Your task to perform on an android device: Clear the cart on target. Add "usb-a" to the cart on target, then select checkout. Image 0: 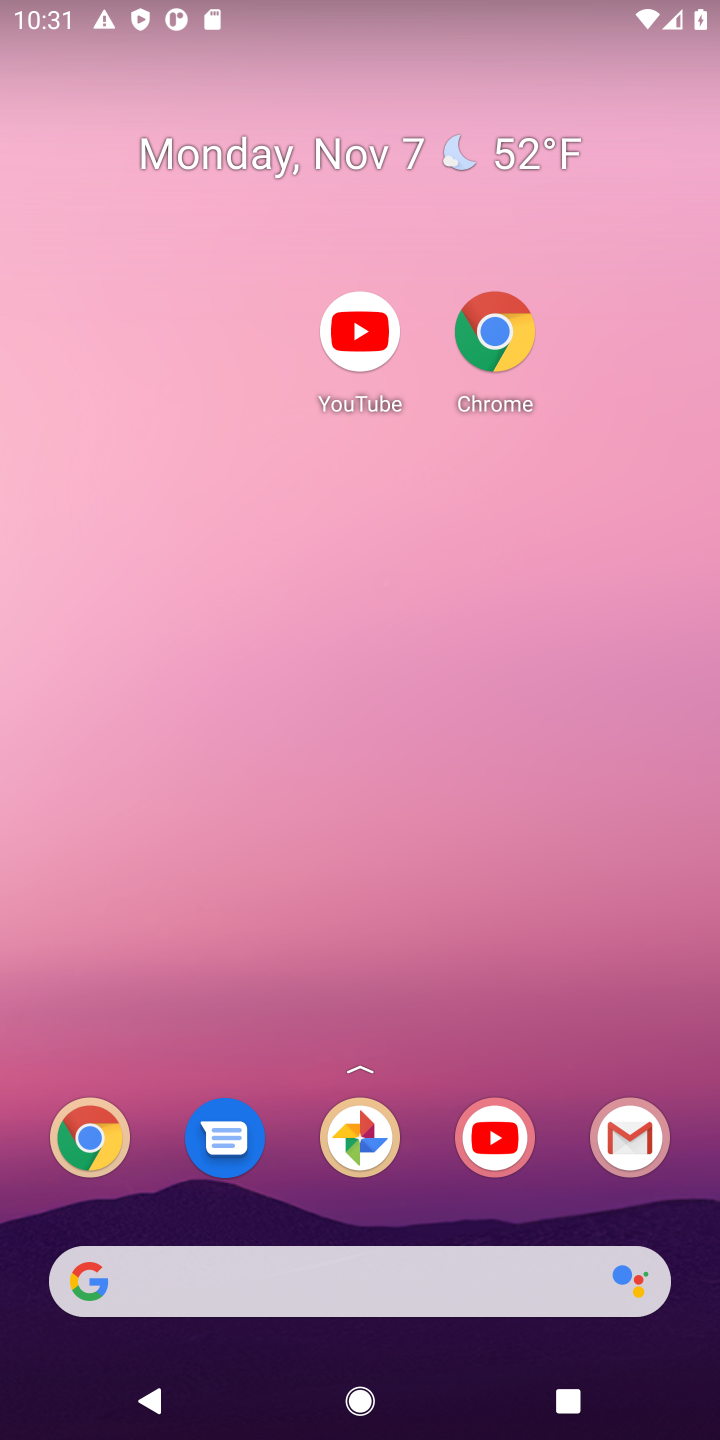
Step 0: press home button
Your task to perform on an android device: Clear the cart on target. Add "usb-a" to the cart on target, then select checkout. Image 1: 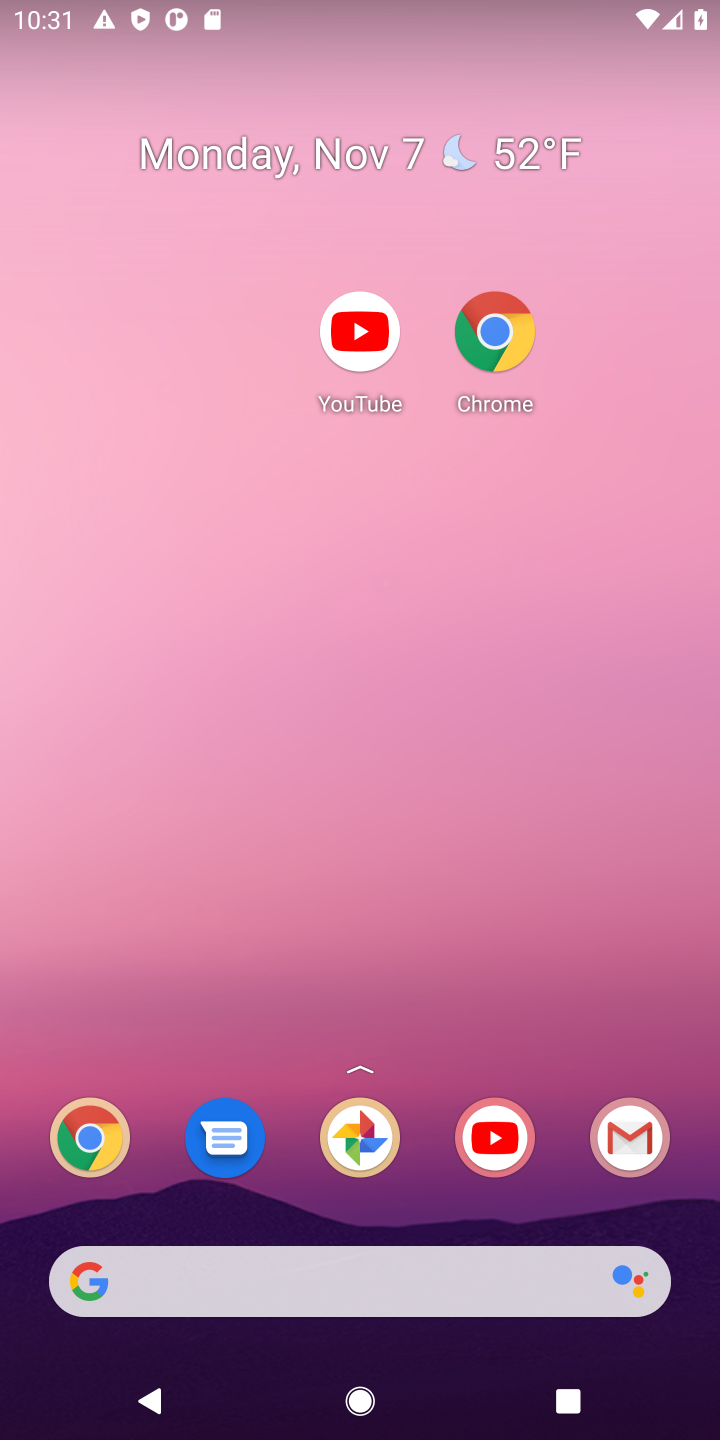
Step 1: drag from (397, 455) to (423, 152)
Your task to perform on an android device: Clear the cart on target. Add "usb-a" to the cart on target, then select checkout. Image 2: 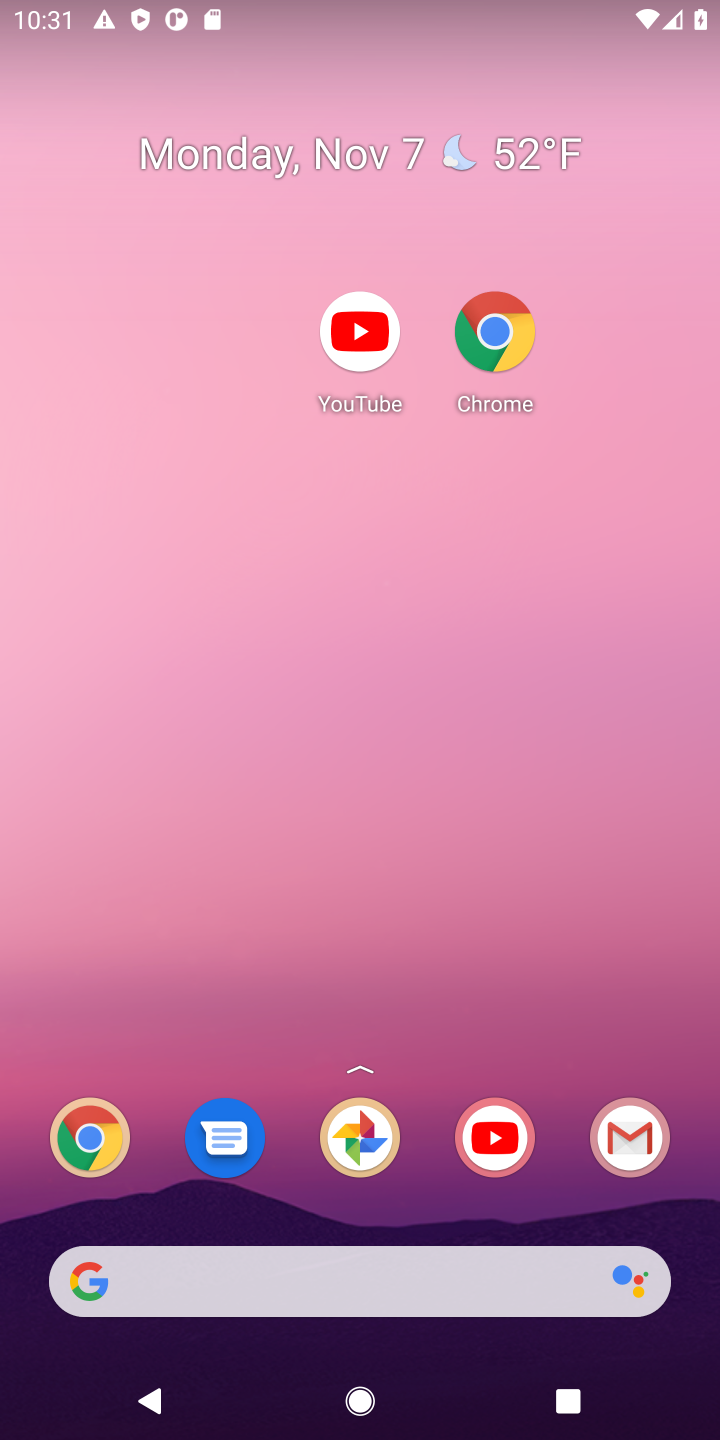
Step 2: drag from (279, 1199) to (259, 173)
Your task to perform on an android device: Clear the cart on target. Add "usb-a" to the cart on target, then select checkout. Image 3: 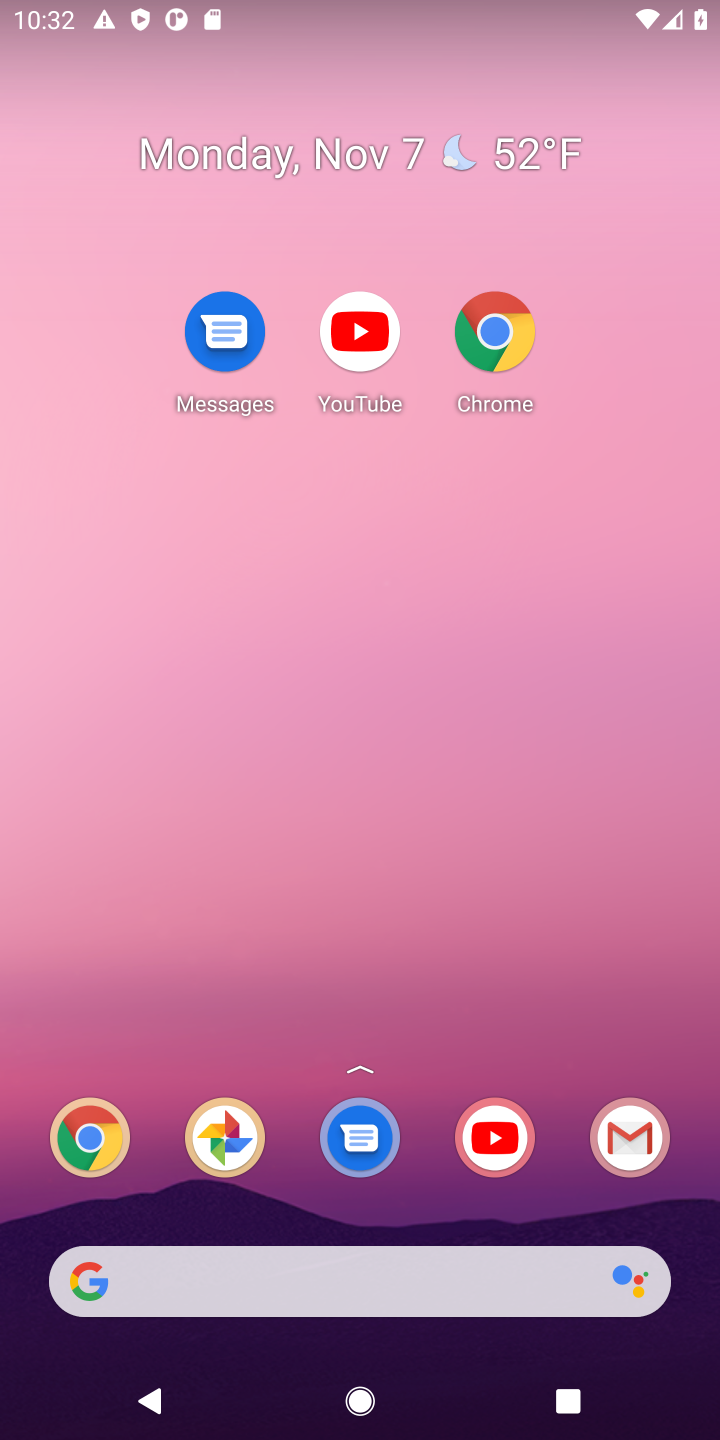
Step 3: drag from (298, 1215) to (217, 485)
Your task to perform on an android device: Clear the cart on target. Add "usb-a" to the cart on target, then select checkout. Image 4: 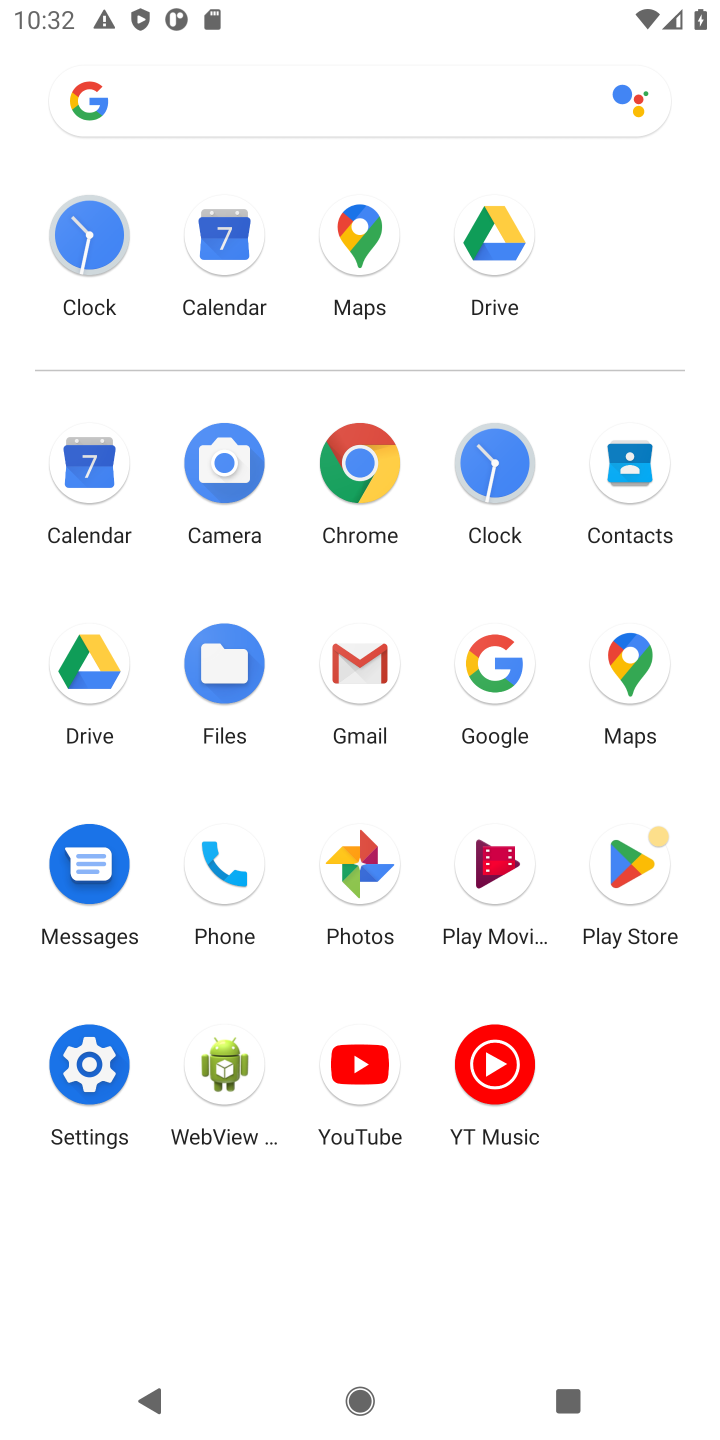
Step 4: click (358, 465)
Your task to perform on an android device: Clear the cart on target. Add "usb-a" to the cart on target, then select checkout. Image 5: 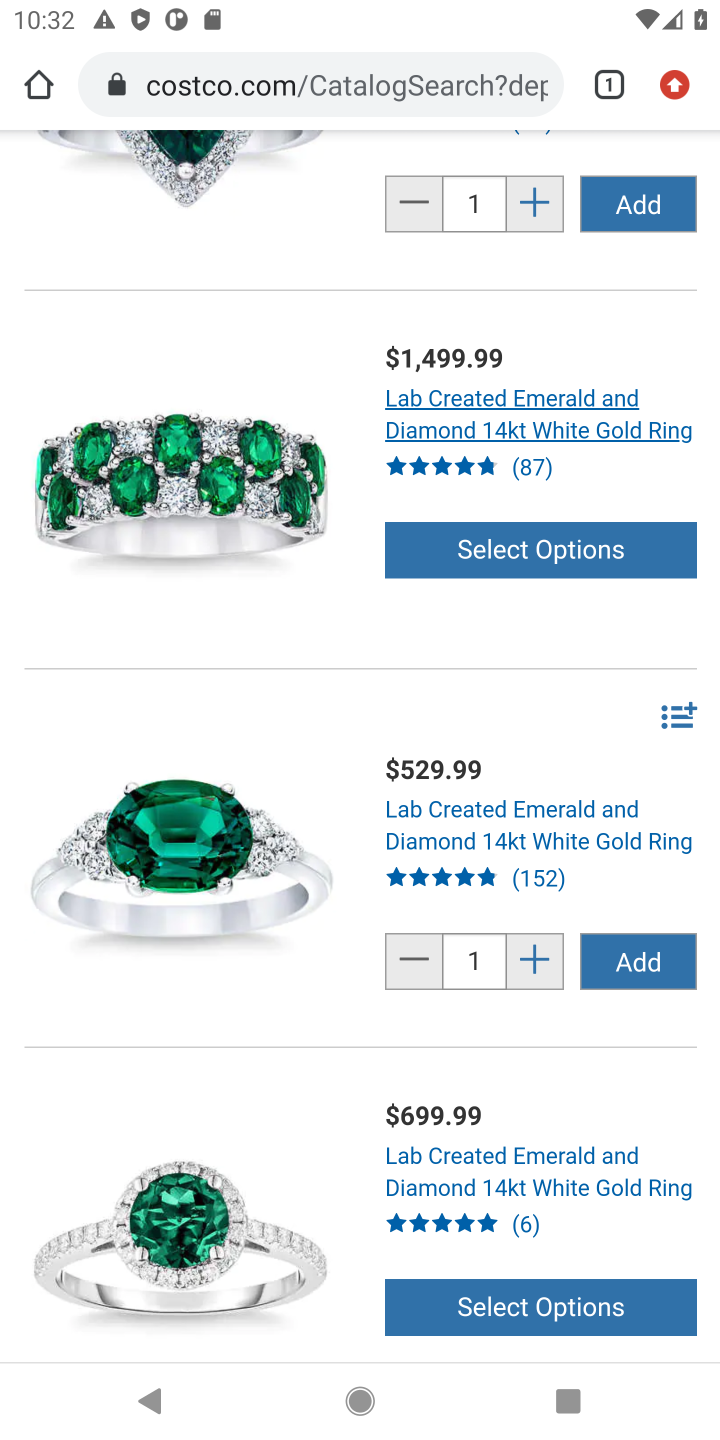
Step 5: click (384, 69)
Your task to perform on an android device: Clear the cart on target. Add "usb-a" to the cart on target, then select checkout. Image 6: 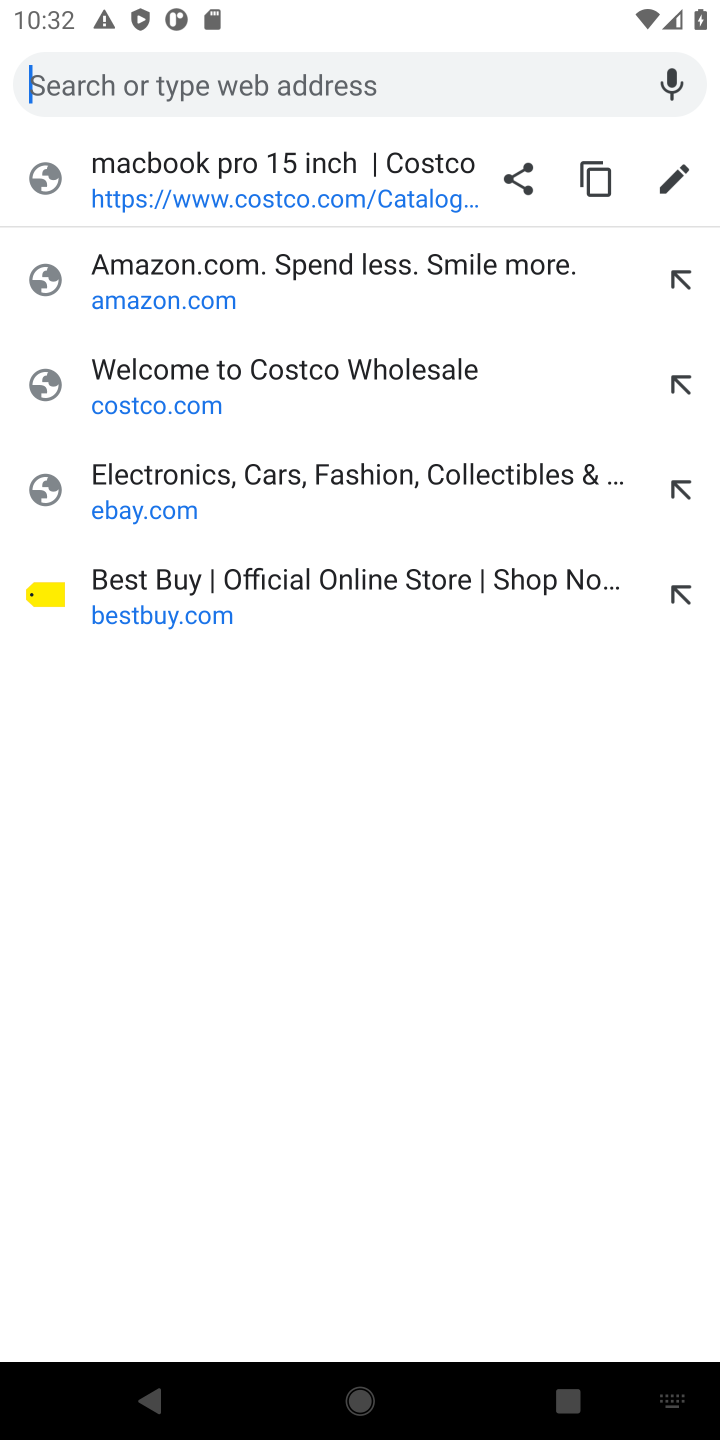
Step 6: type "target.com"
Your task to perform on an android device: Clear the cart on target. Add "usb-a" to the cart on target, then select checkout. Image 7: 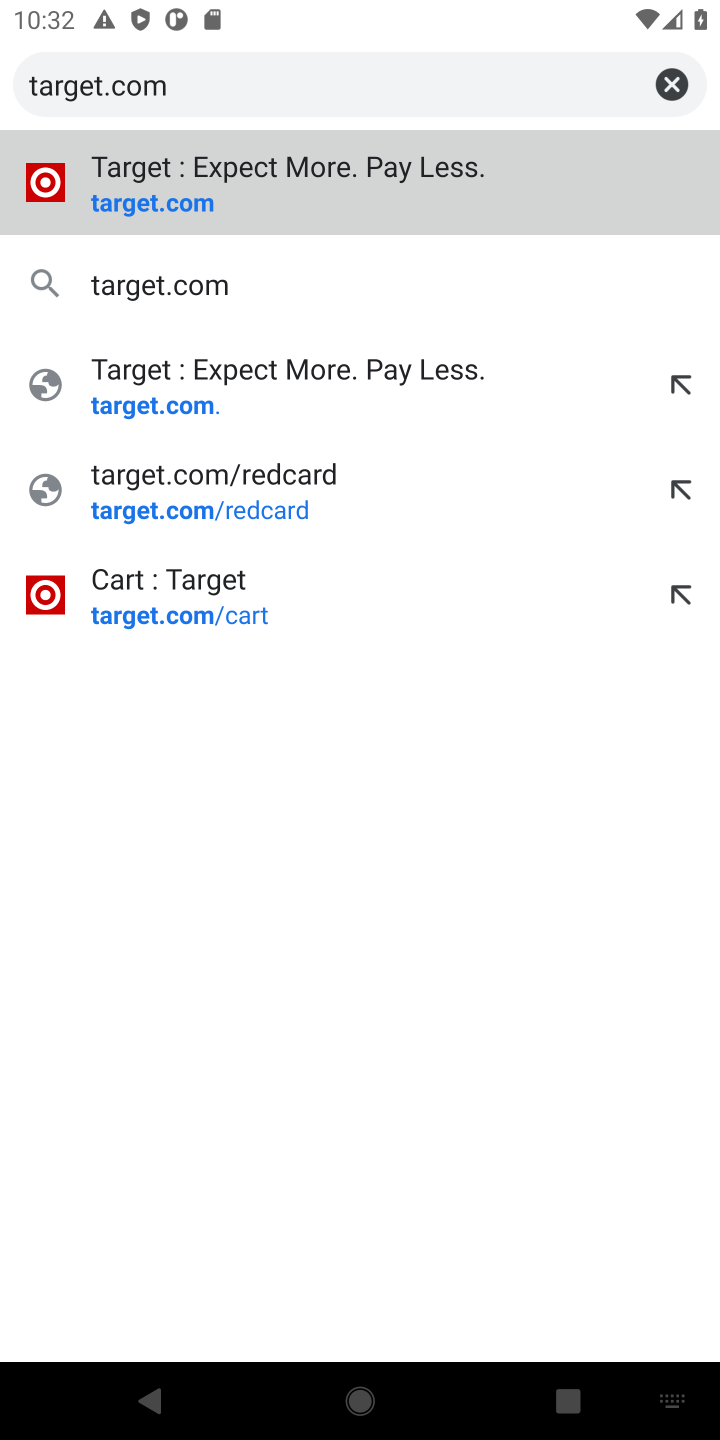
Step 7: press enter
Your task to perform on an android device: Clear the cart on target. Add "usb-a" to the cart on target, then select checkout. Image 8: 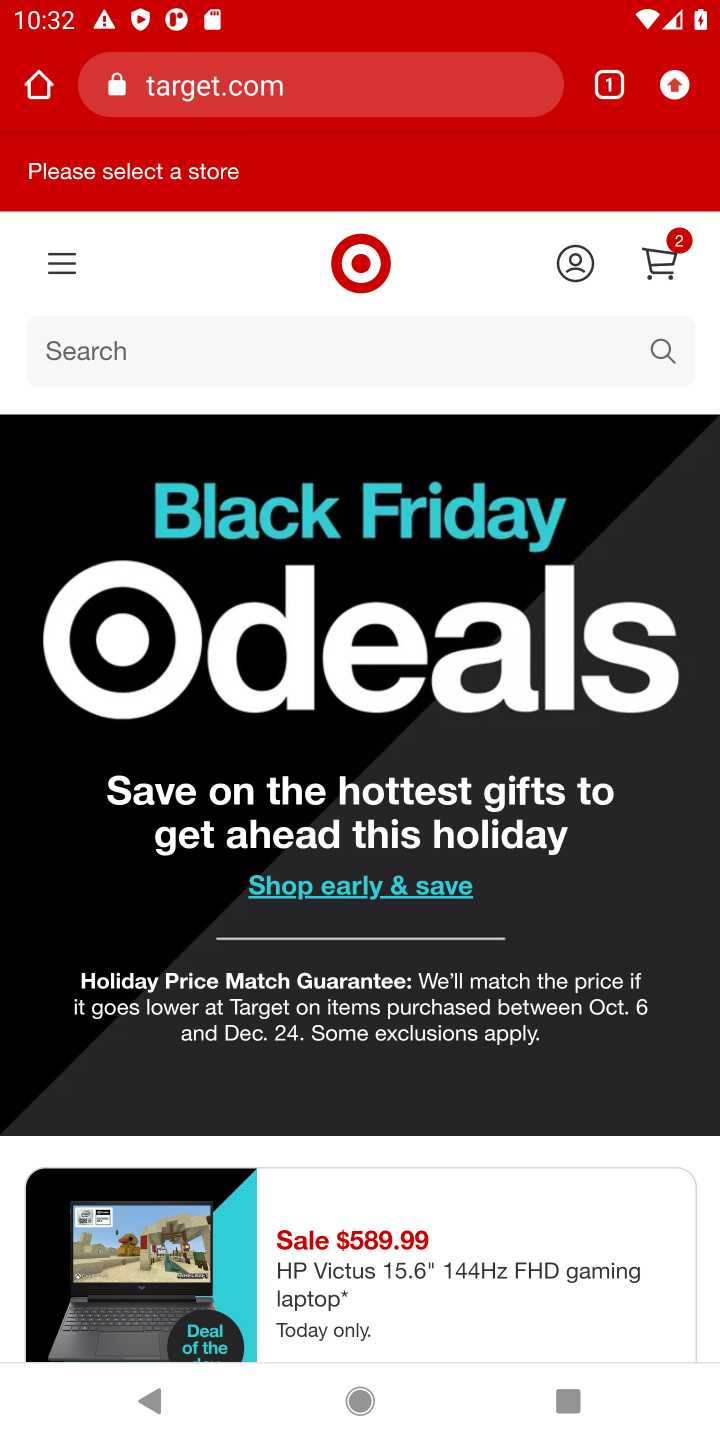
Step 8: click (658, 257)
Your task to perform on an android device: Clear the cart on target. Add "usb-a" to the cart on target, then select checkout. Image 9: 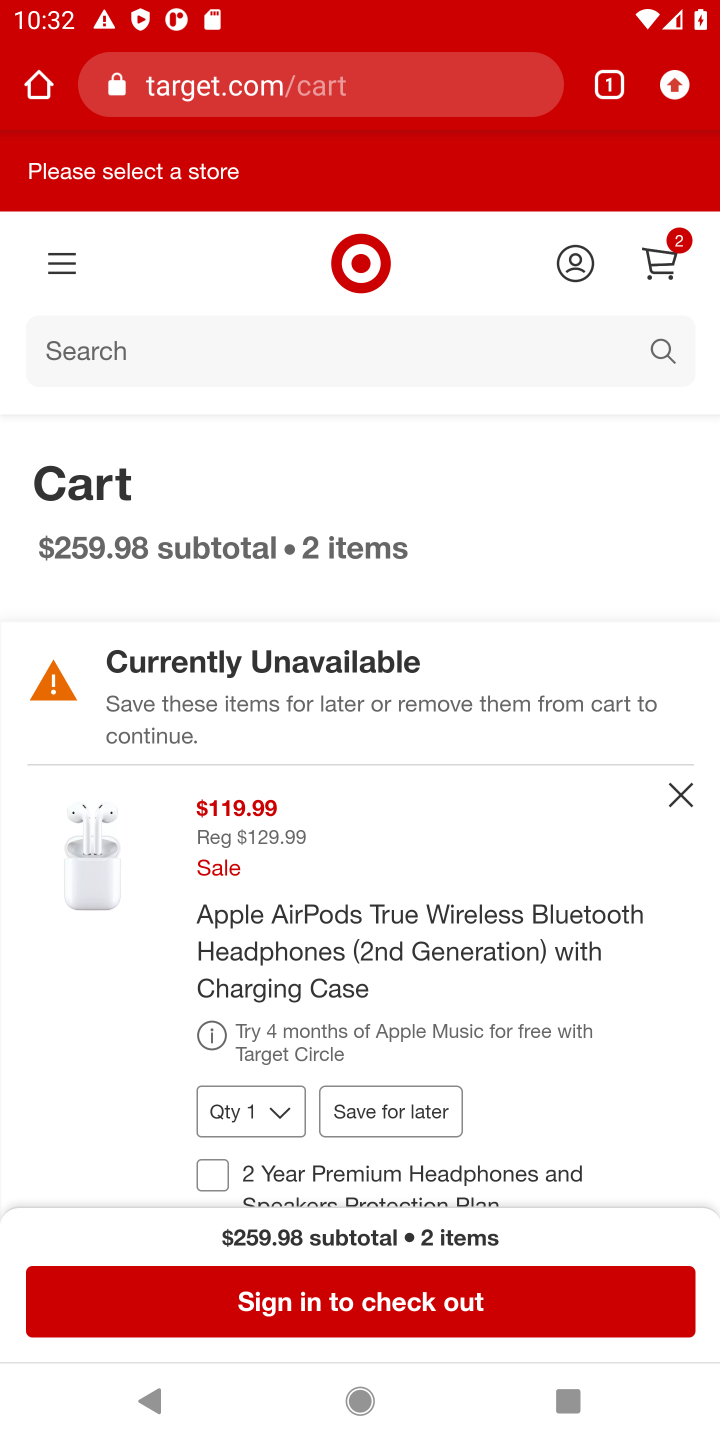
Step 9: click (680, 792)
Your task to perform on an android device: Clear the cart on target. Add "usb-a" to the cart on target, then select checkout. Image 10: 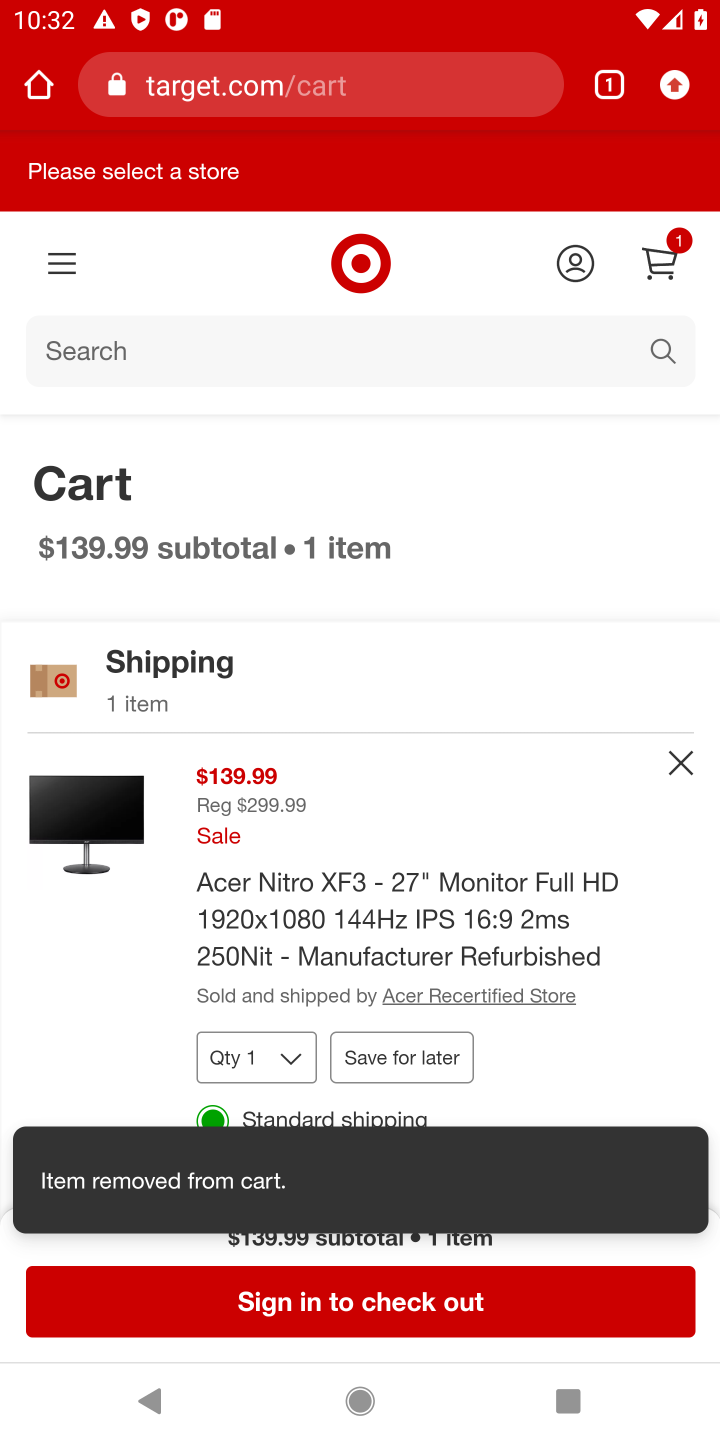
Step 10: click (692, 774)
Your task to perform on an android device: Clear the cart on target. Add "usb-a" to the cart on target, then select checkout. Image 11: 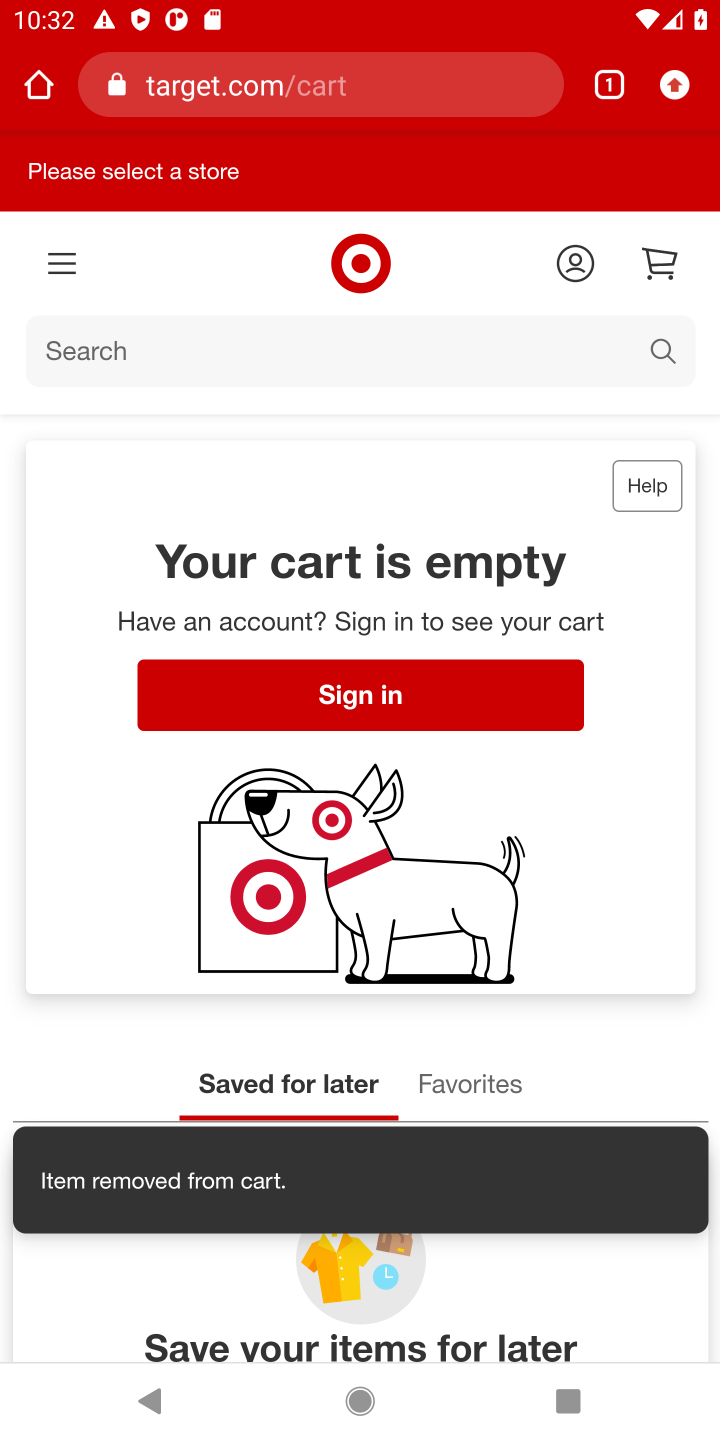
Step 11: click (531, 347)
Your task to perform on an android device: Clear the cart on target. Add "usb-a" to the cart on target, then select checkout. Image 12: 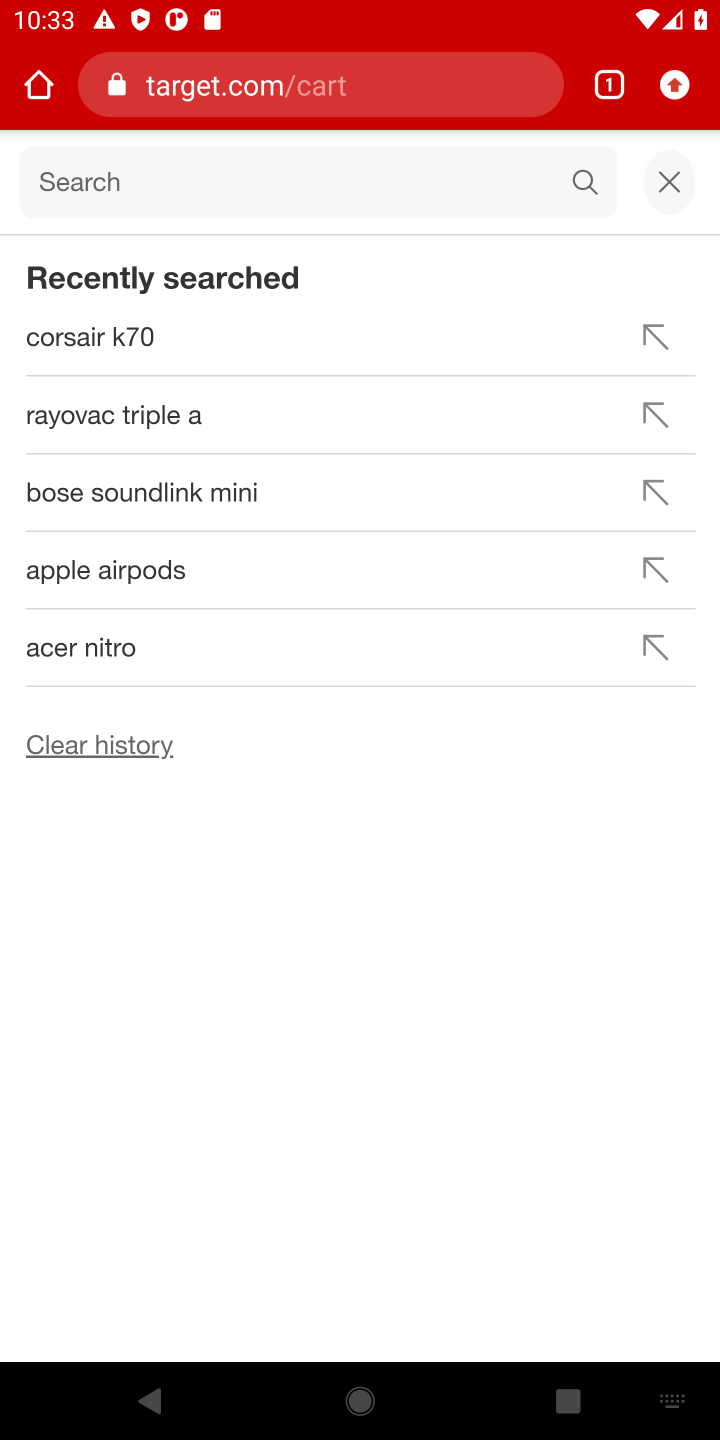
Step 12: type "usb-a "
Your task to perform on an android device: Clear the cart on target. Add "usb-a" to the cart on target, then select checkout. Image 13: 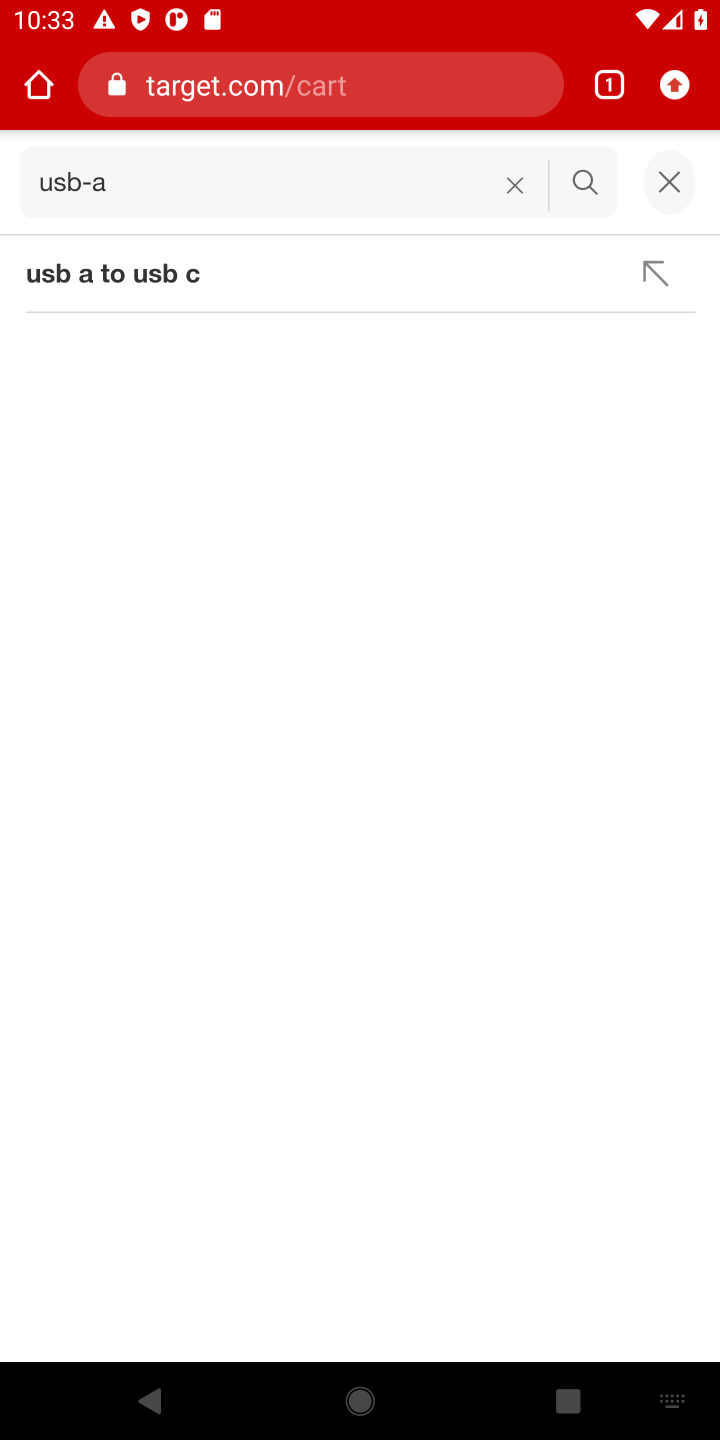
Step 13: press enter
Your task to perform on an android device: Clear the cart on target. Add "usb-a" to the cart on target, then select checkout. Image 14: 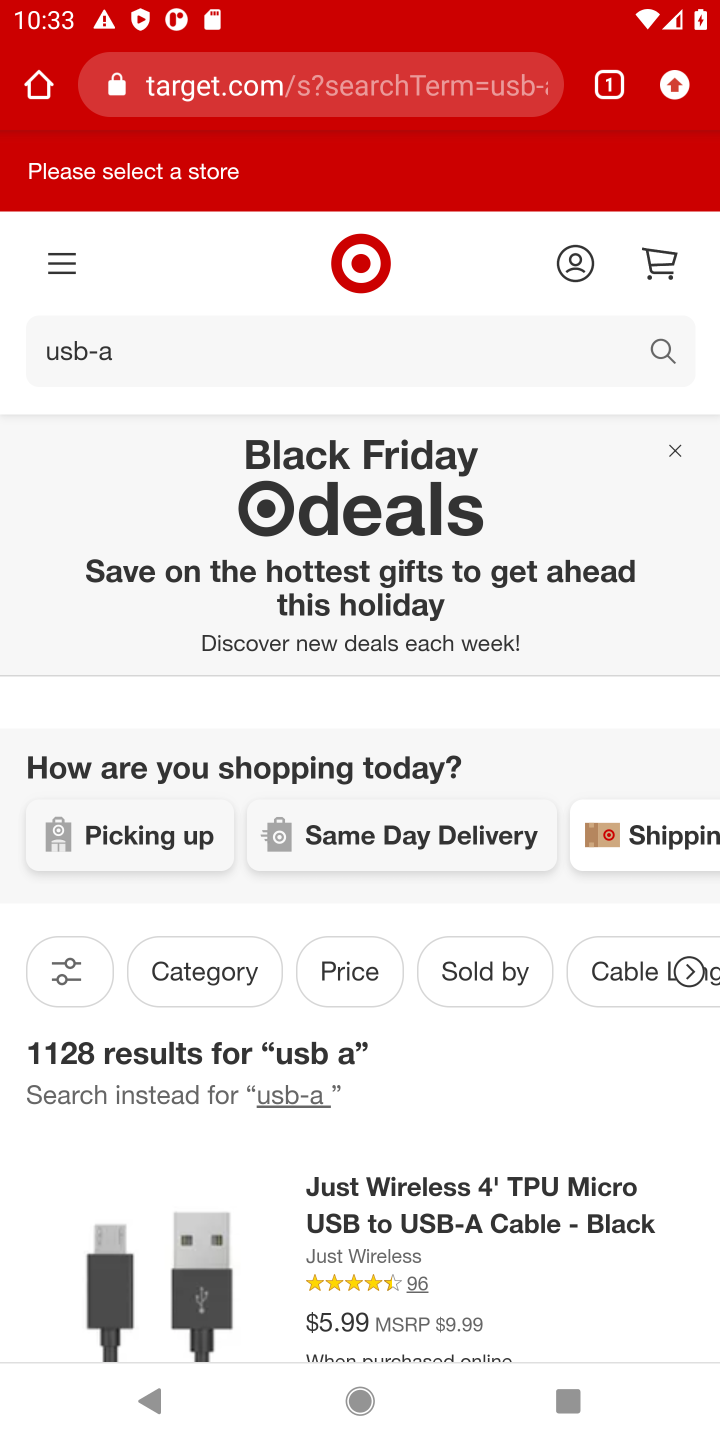
Step 14: drag from (450, 1134) to (423, 342)
Your task to perform on an android device: Clear the cart on target. Add "usb-a" to the cart on target, then select checkout. Image 15: 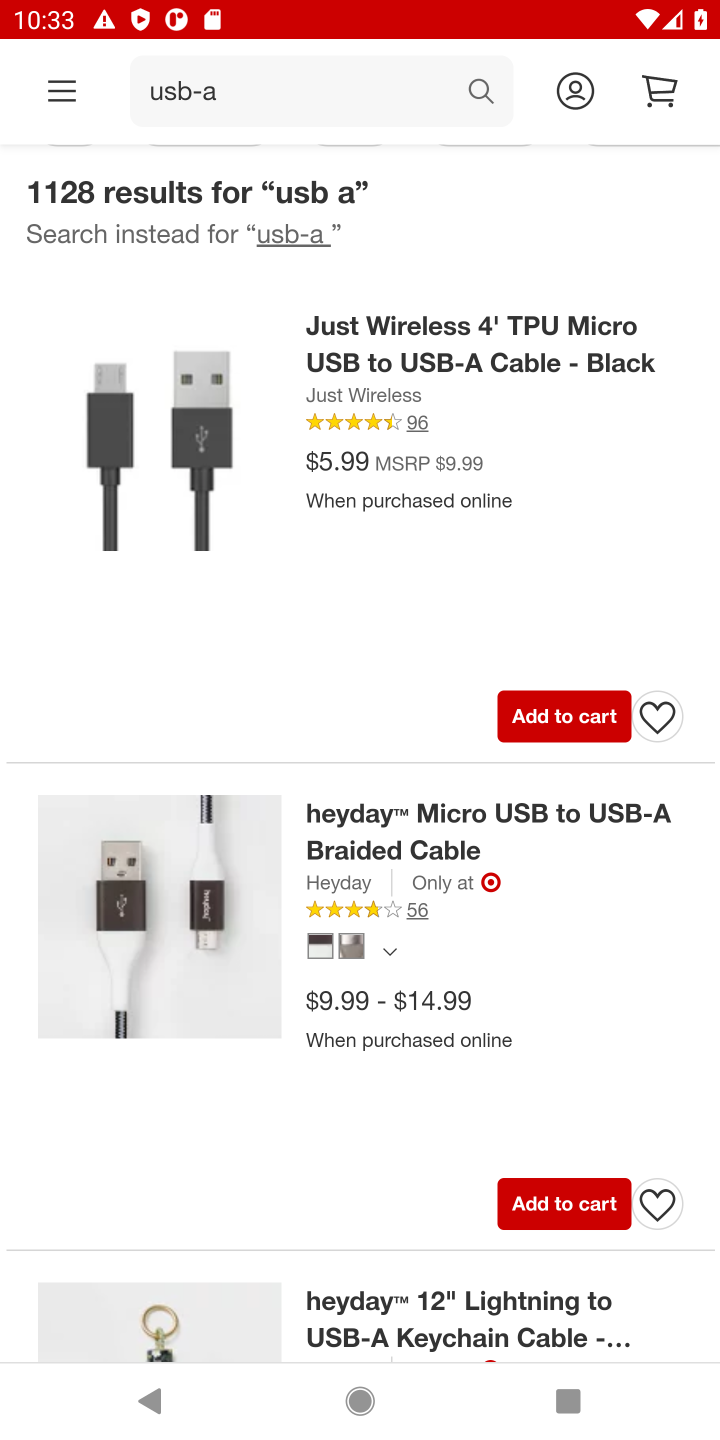
Step 15: click (712, 1052)
Your task to perform on an android device: Clear the cart on target. Add "usb-a" to the cart on target, then select checkout. Image 16: 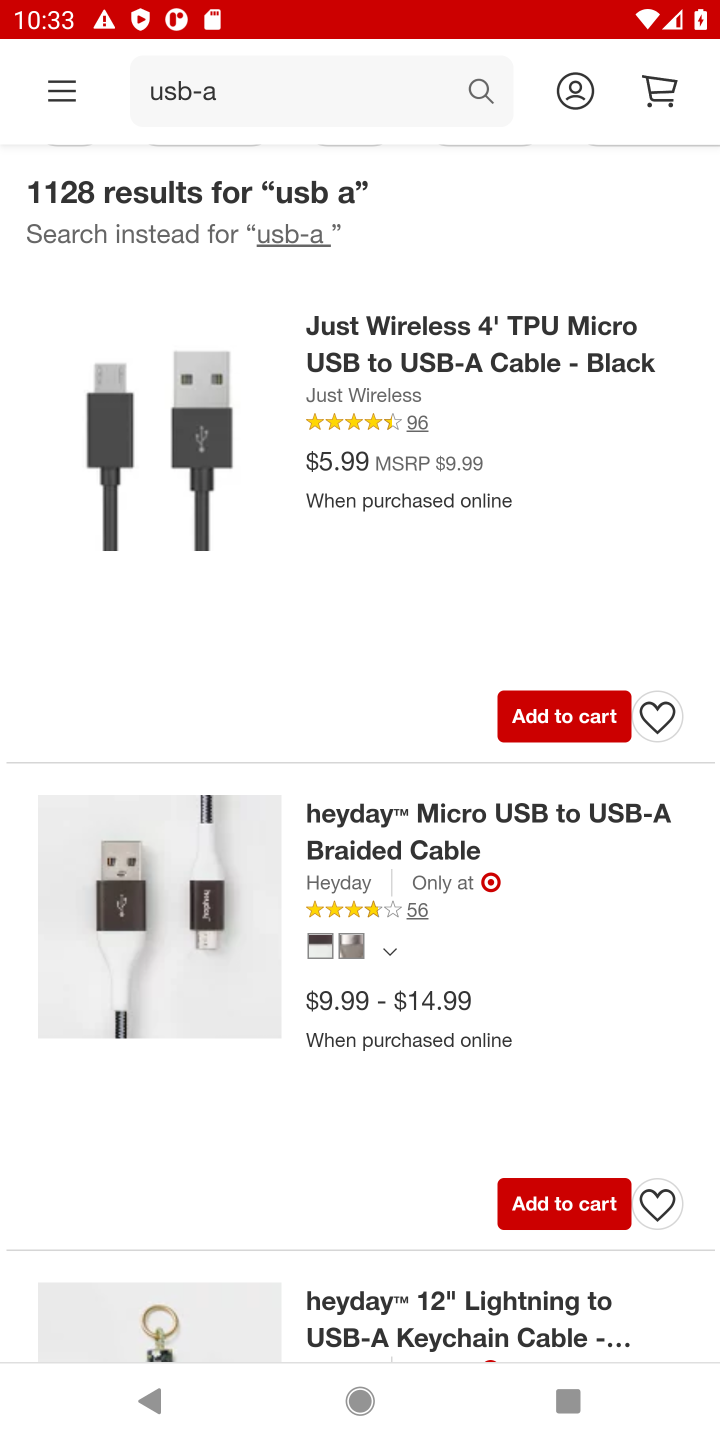
Step 16: click (582, 713)
Your task to perform on an android device: Clear the cart on target. Add "usb-a" to the cart on target, then select checkout. Image 17: 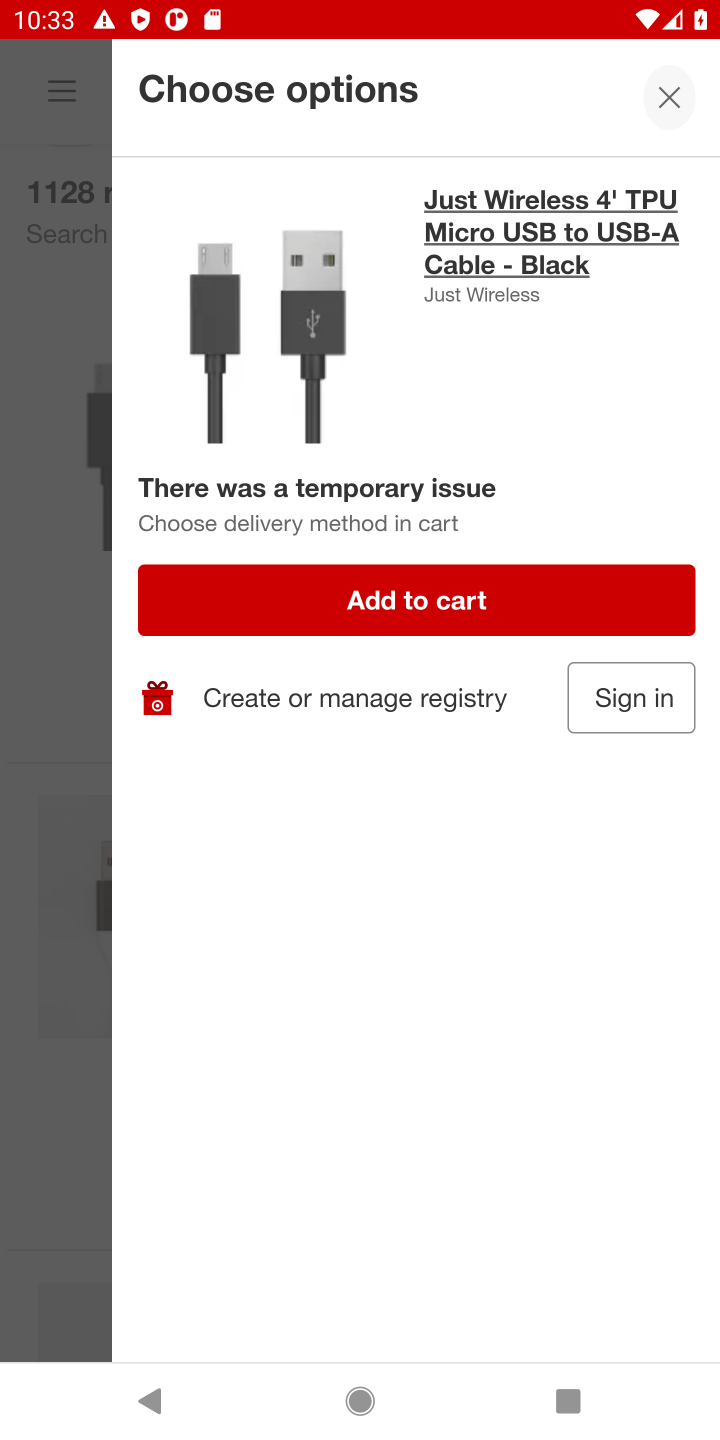
Step 17: click (483, 606)
Your task to perform on an android device: Clear the cart on target. Add "usb-a" to the cart on target, then select checkout. Image 18: 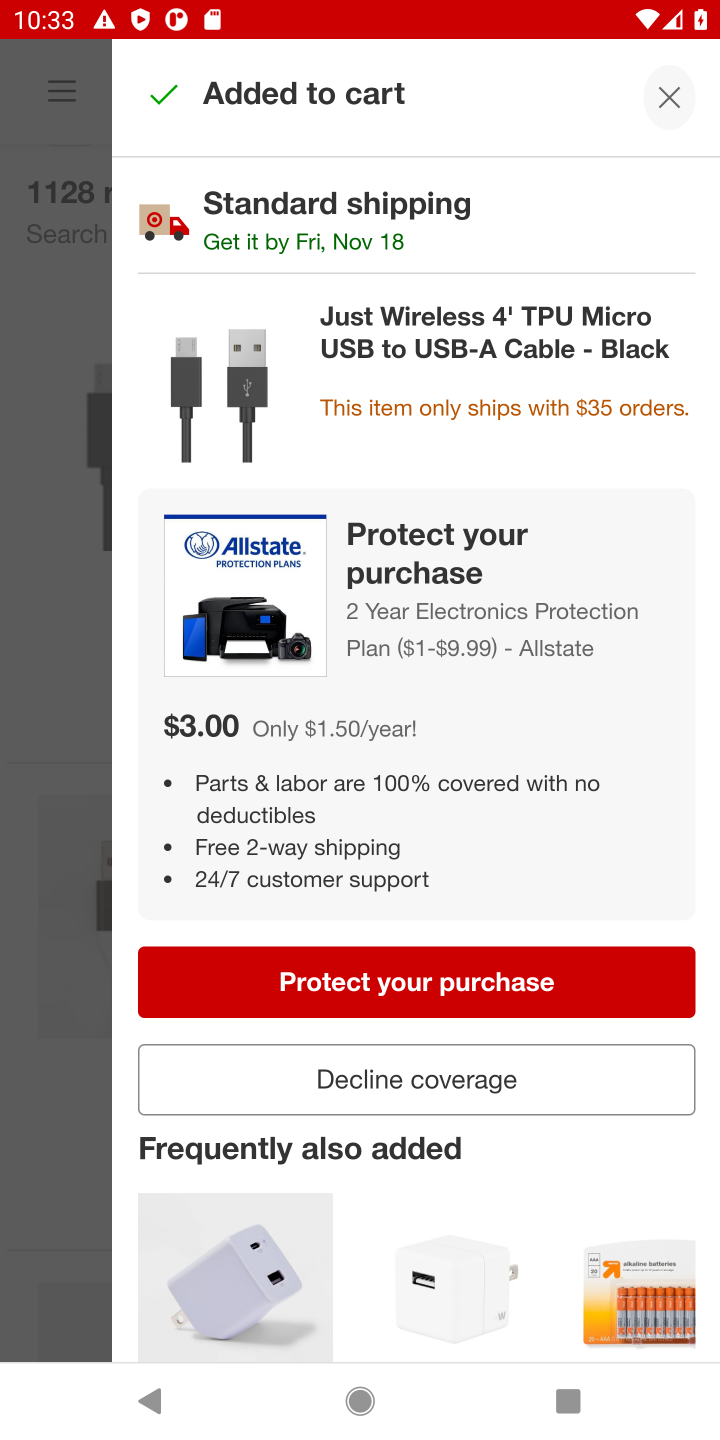
Step 18: click (671, 98)
Your task to perform on an android device: Clear the cart on target. Add "usb-a" to the cart on target, then select checkout. Image 19: 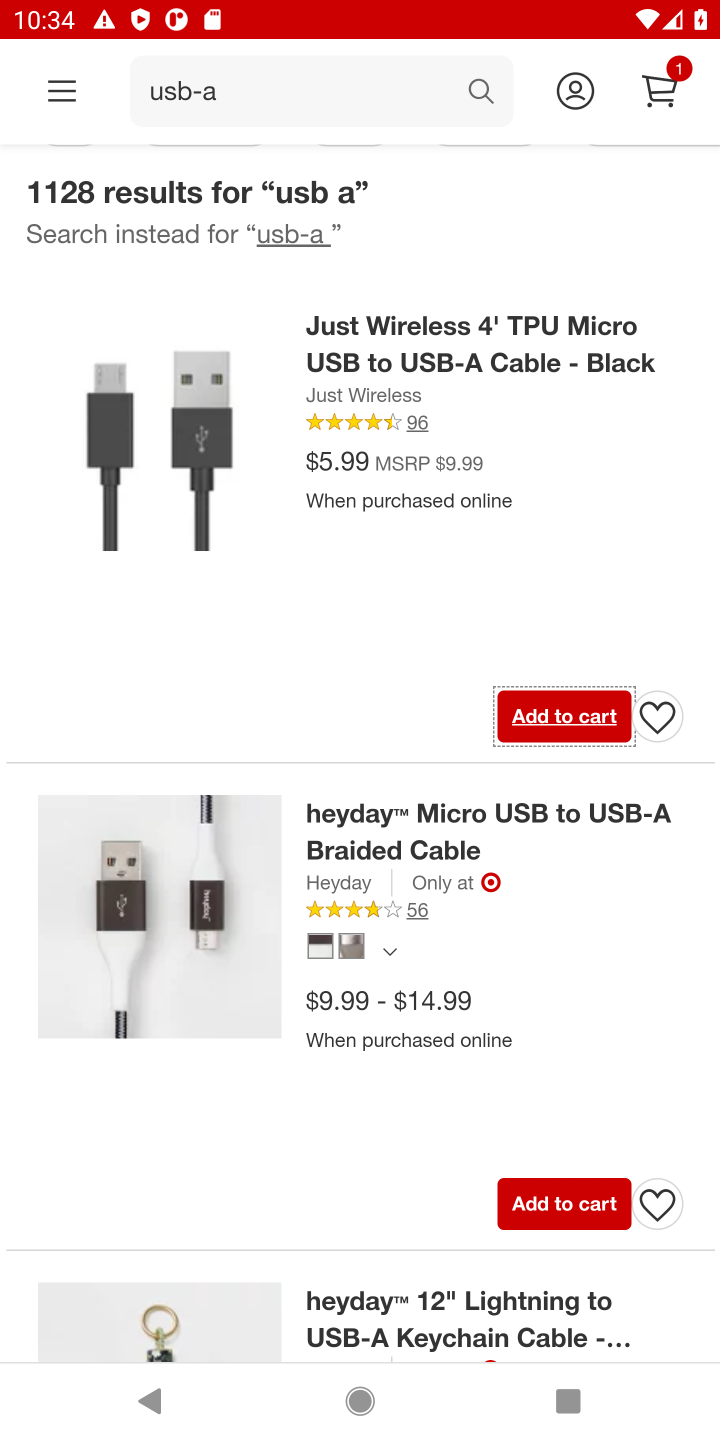
Step 19: click (671, 98)
Your task to perform on an android device: Clear the cart on target. Add "usb-a" to the cart on target, then select checkout. Image 20: 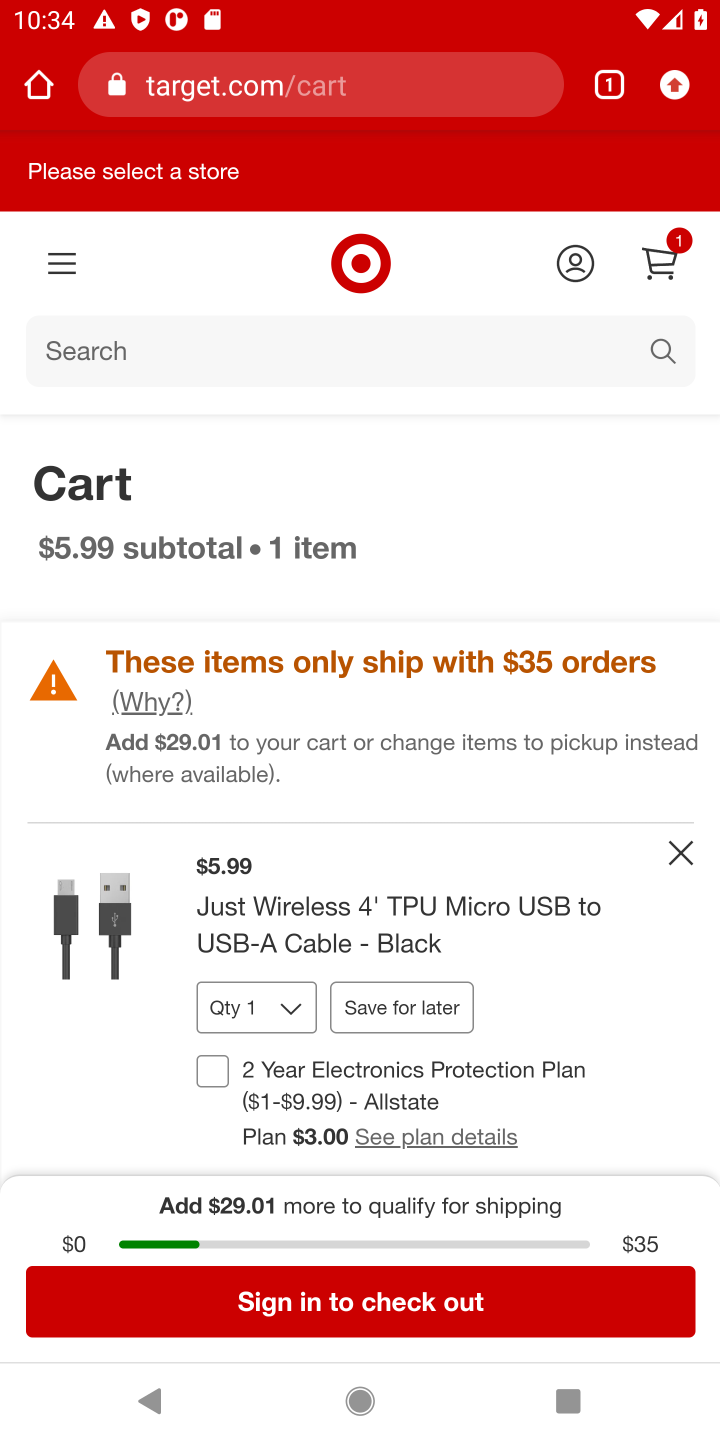
Step 20: click (445, 1298)
Your task to perform on an android device: Clear the cart on target. Add "usb-a" to the cart on target, then select checkout. Image 21: 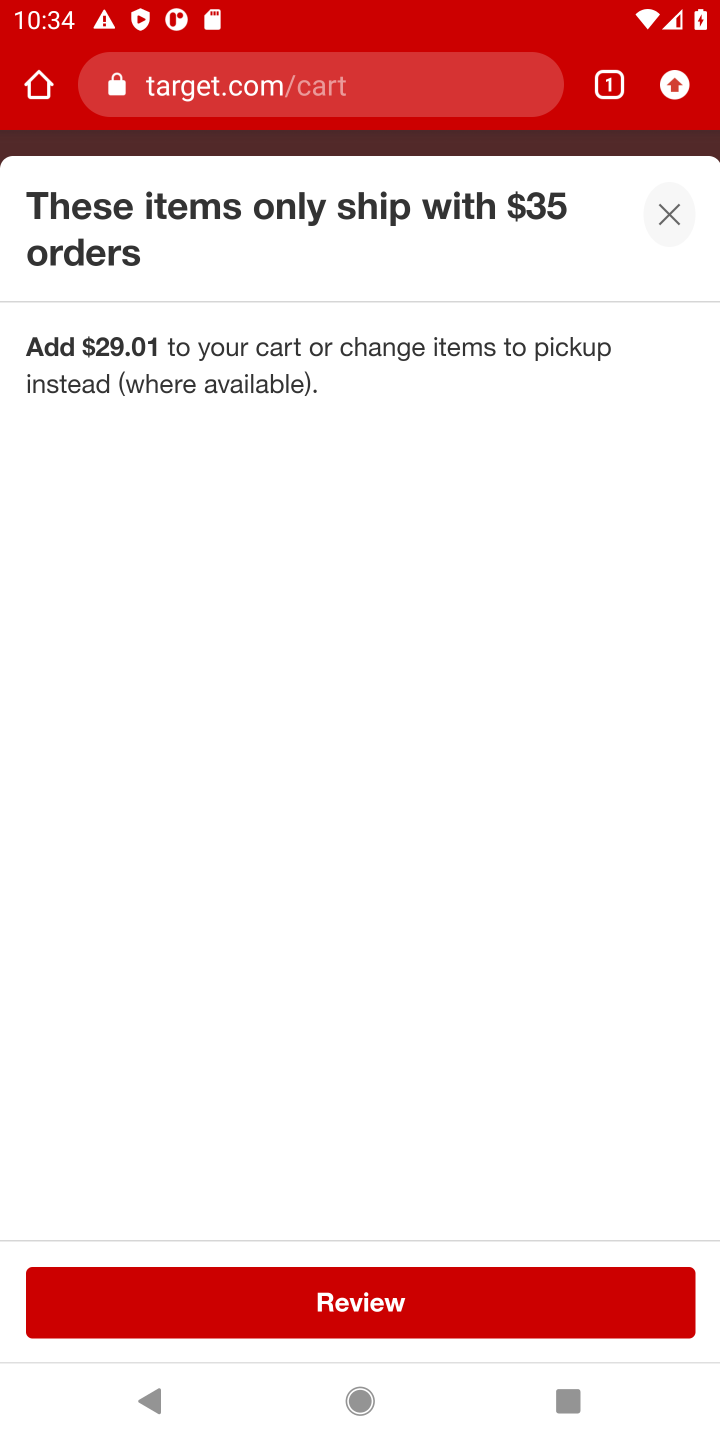
Step 21: task complete